Your task to perform on an android device: Open Reddit.com Image 0: 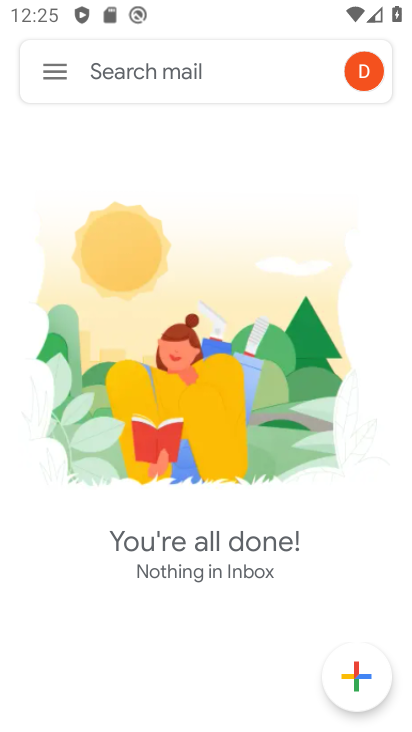
Step 0: press back button
Your task to perform on an android device: Open Reddit.com Image 1: 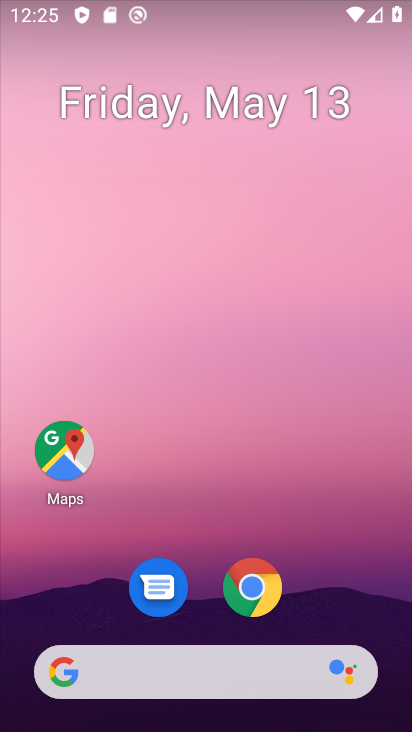
Step 1: click (244, 596)
Your task to perform on an android device: Open Reddit.com Image 2: 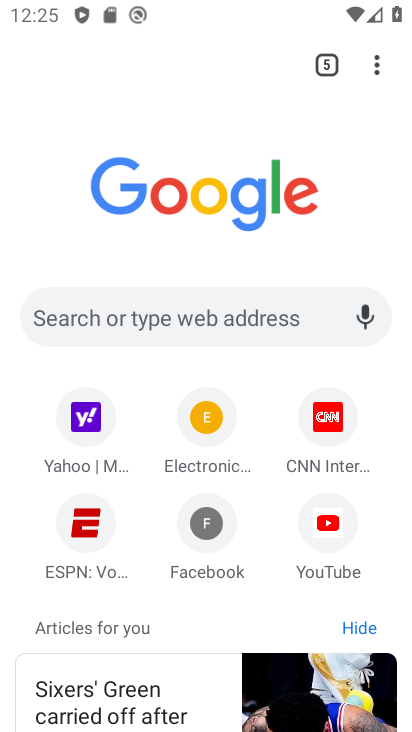
Step 2: click (145, 320)
Your task to perform on an android device: Open Reddit.com Image 3: 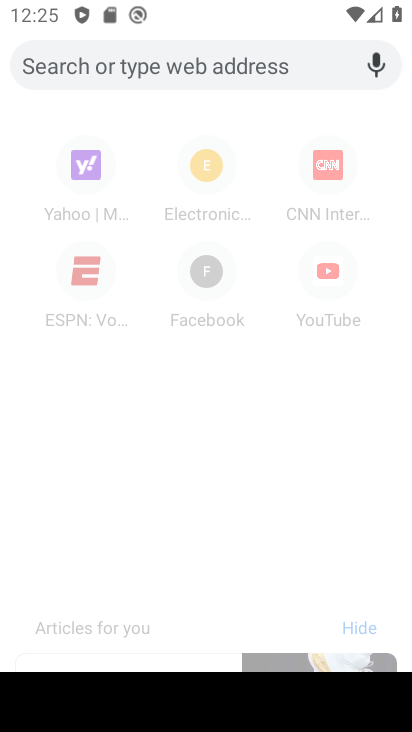
Step 3: click (80, 72)
Your task to perform on an android device: Open Reddit.com Image 4: 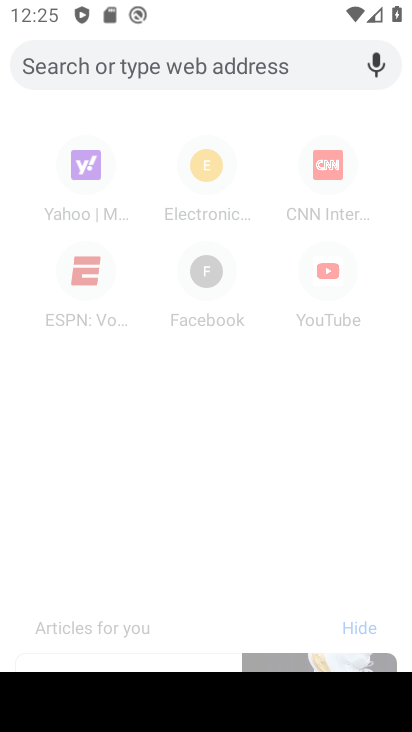
Step 4: type "reddit.com"
Your task to perform on an android device: Open Reddit.com Image 5: 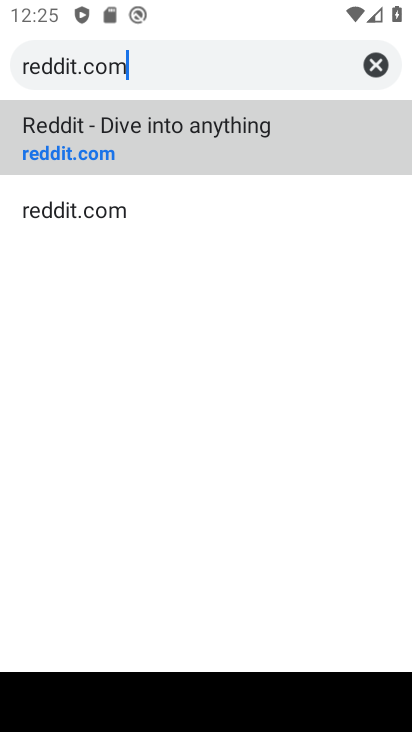
Step 5: click (180, 103)
Your task to perform on an android device: Open Reddit.com Image 6: 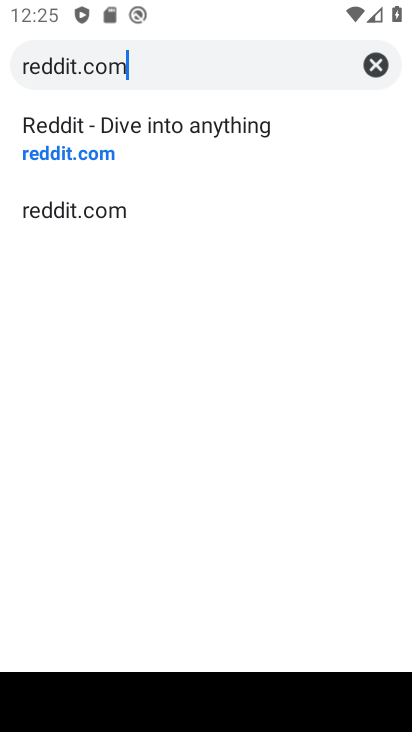
Step 6: click (145, 140)
Your task to perform on an android device: Open Reddit.com Image 7: 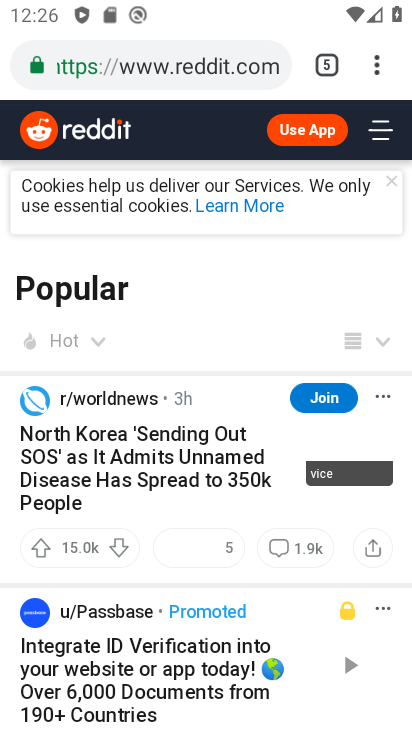
Step 7: task complete